Your task to perform on an android device: Clear the shopping cart on walmart. Image 0: 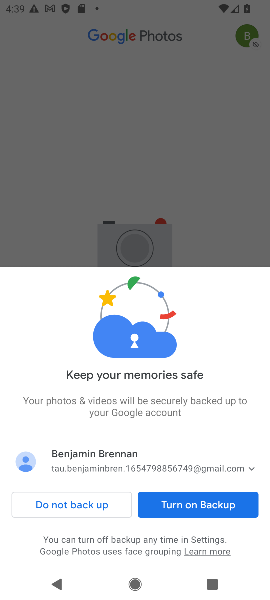
Step 0: click (68, 506)
Your task to perform on an android device: Clear the shopping cart on walmart. Image 1: 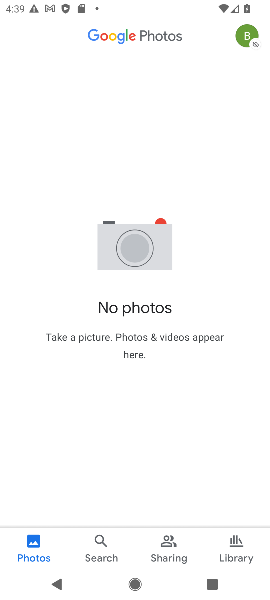
Step 1: press home button
Your task to perform on an android device: Clear the shopping cart on walmart. Image 2: 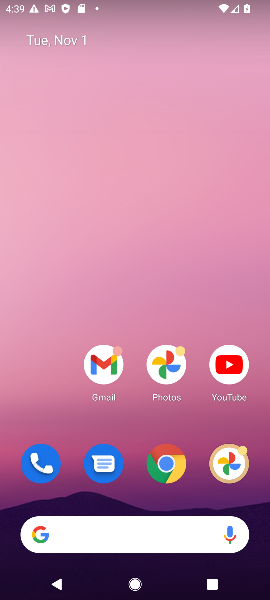
Step 2: click (165, 460)
Your task to perform on an android device: Clear the shopping cart on walmart. Image 3: 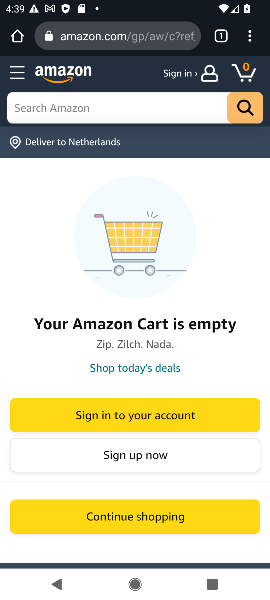
Step 3: click (128, 35)
Your task to perform on an android device: Clear the shopping cart on walmart. Image 4: 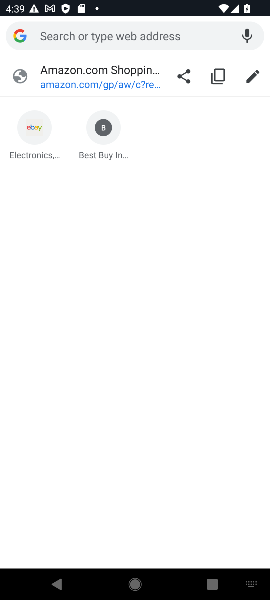
Step 4: type "walmart"
Your task to perform on an android device: Clear the shopping cart on walmart. Image 5: 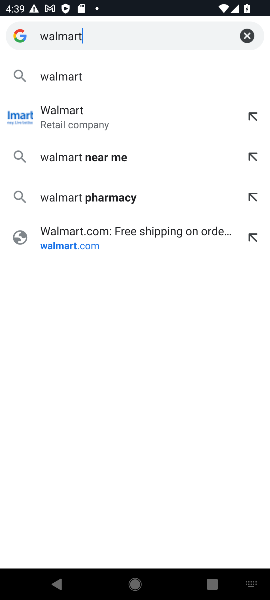
Step 5: press enter
Your task to perform on an android device: Clear the shopping cart on walmart. Image 6: 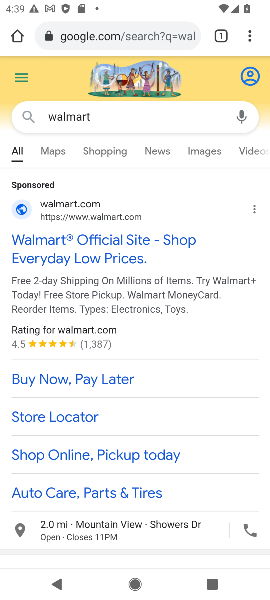
Step 6: drag from (155, 352) to (143, 164)
Your task to perform on an android device: Clear the shopping cart on walmart. Image 7: 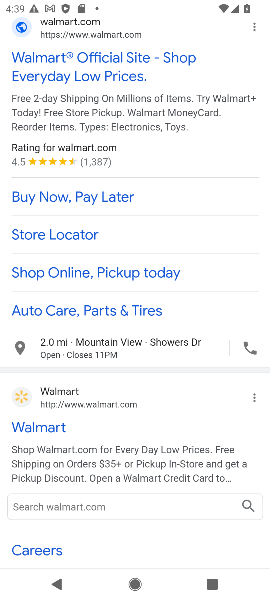
Step 7: click (41, 427)
Your task to perform on an android device: Clear the shopping cart on walmart. Image 8: 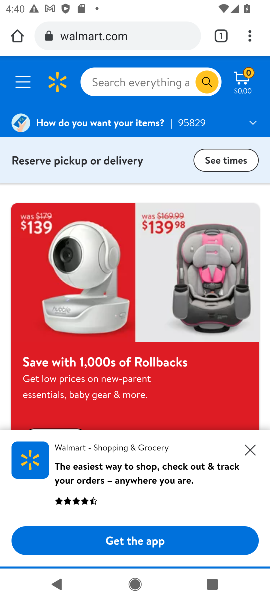
Step 8: click (244, 80)
Your task to perform on an android device: Clear the shopping cart on walmart. Image 9: 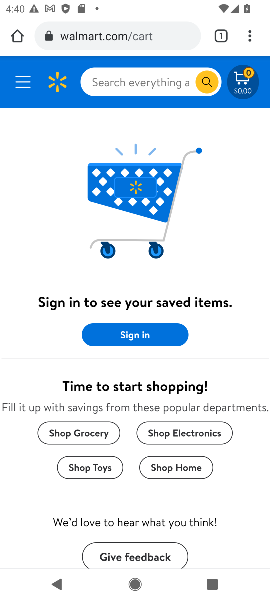
Step 9: task complete